Your task to perform on an android device: search for starred emails in the gmail app Image 0: 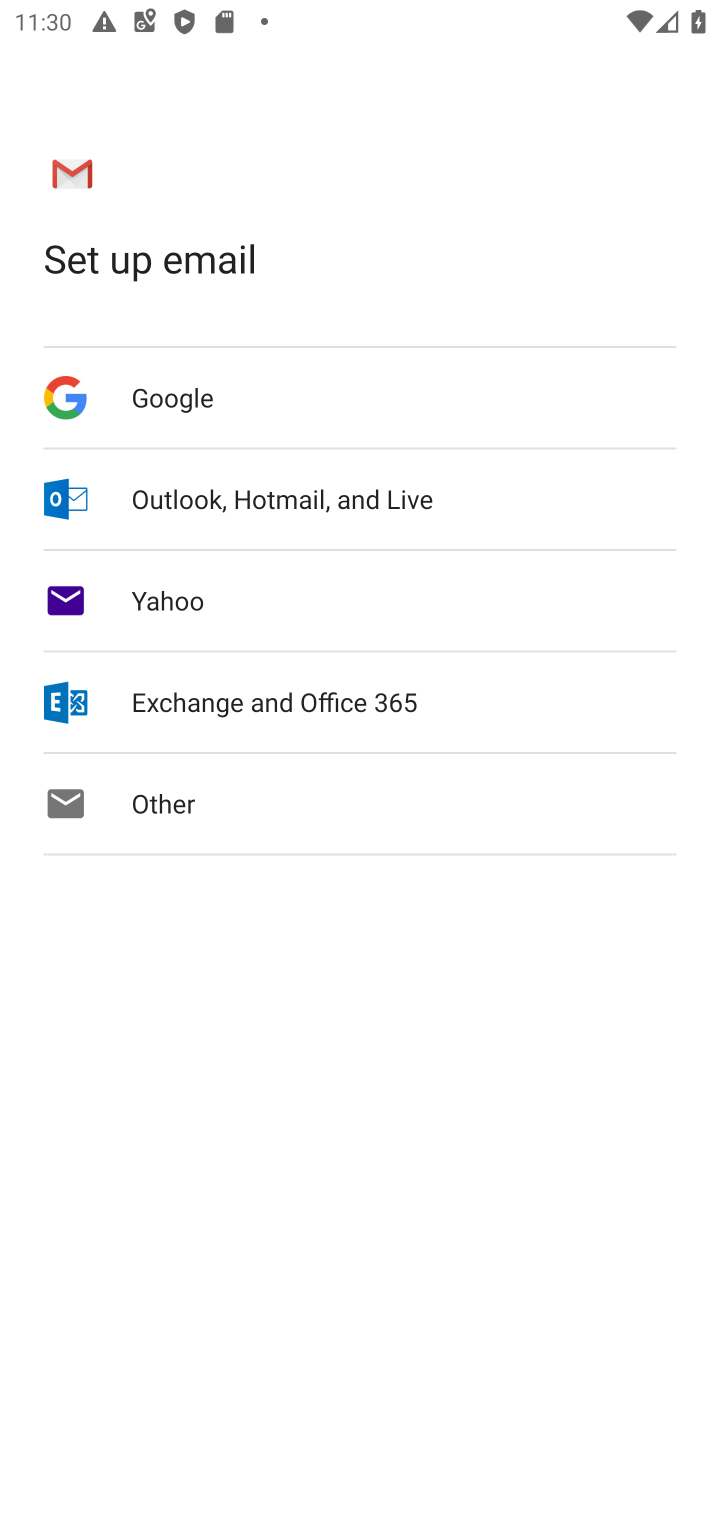
Step 0: press home button
Your task to perform on an android device: search for starred emails in the gmail app Image 1: 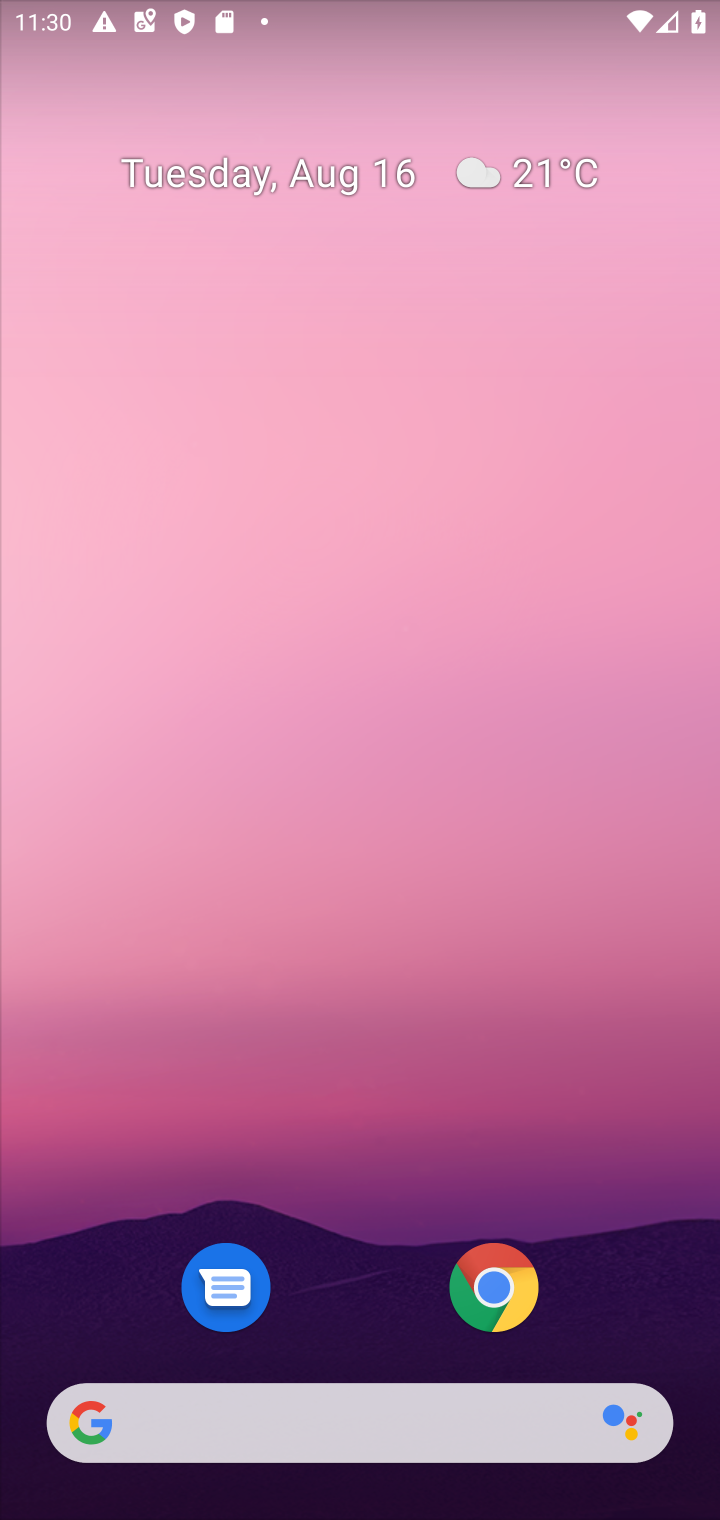
Step 1: drag from (670, 1343) to (558, 362)
Your task to perform on an android device: search for starred emails in the gmail app Image 2: 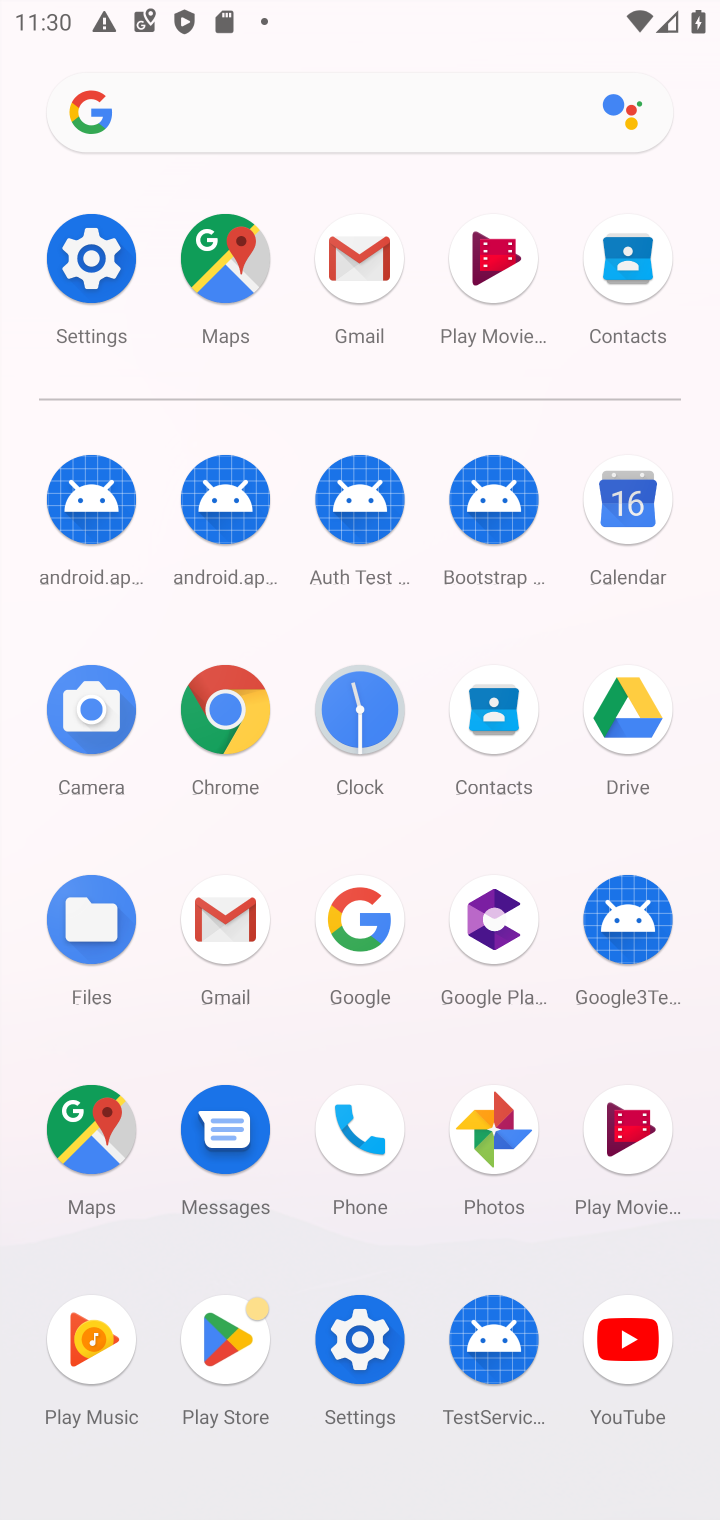
Step 2: click (225, 921)
Your task to perform on an android device: search for starred emails in the gmail app Image 3: 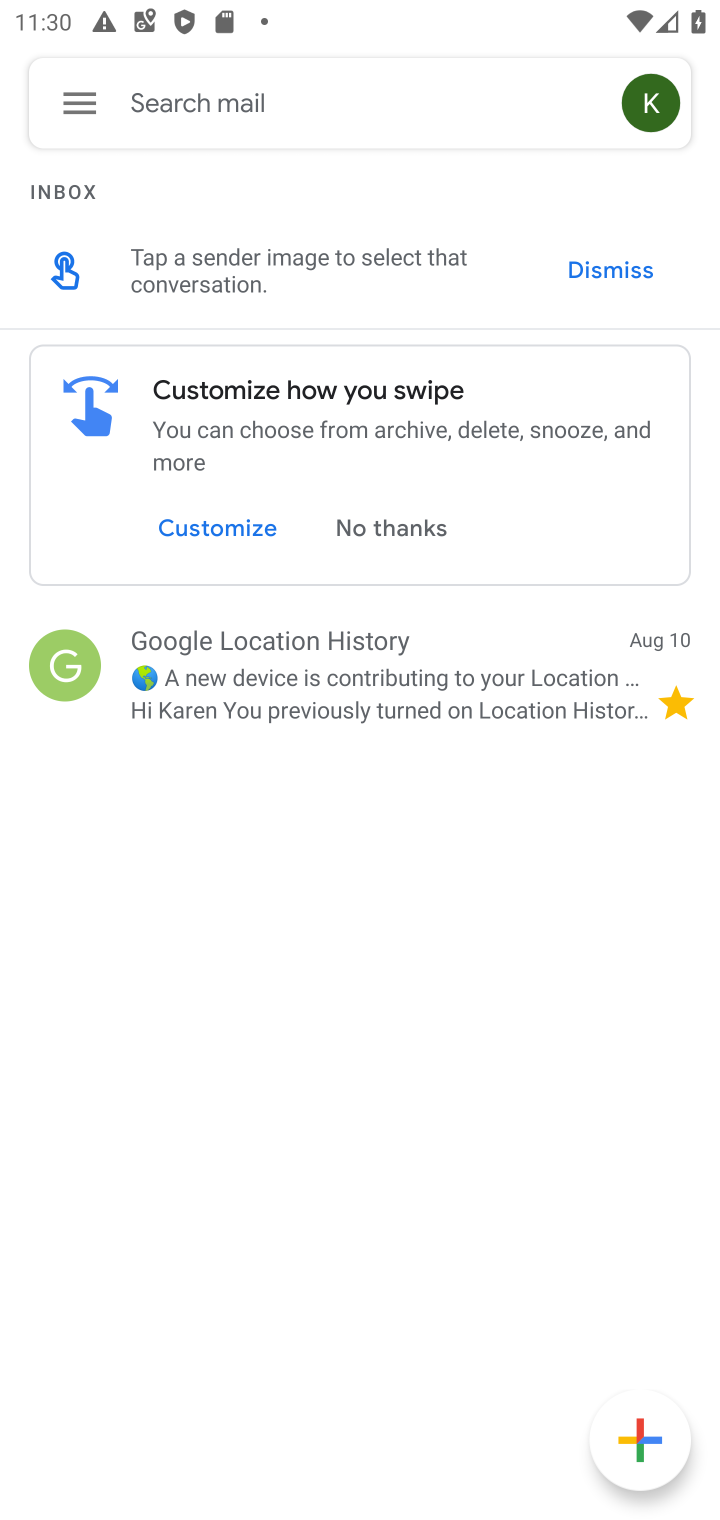
Step 3: click (73, 102)
Your task to perform on an android device: search for starred emails in the gmail app Image 4: 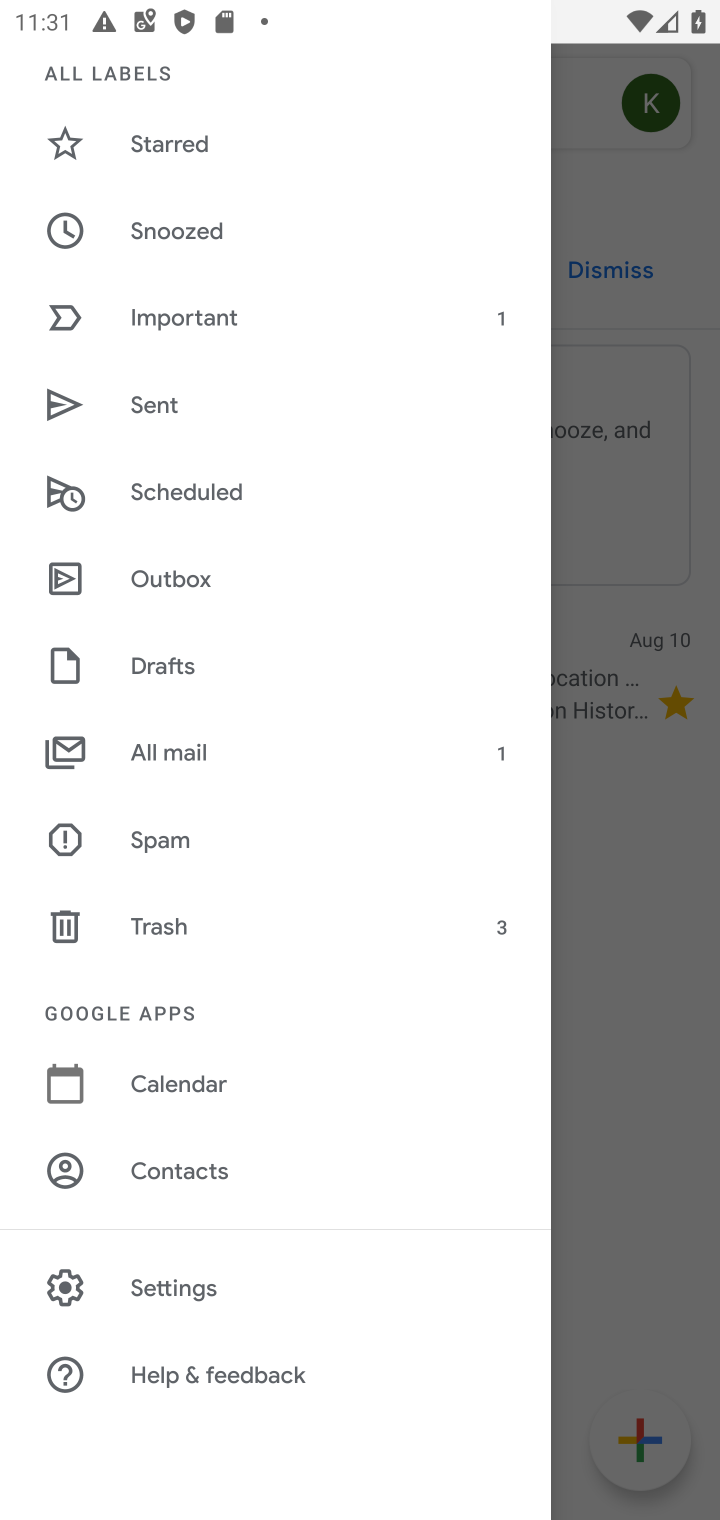
Step 4: drag from (439, 374) to (418, 728)
Your task to perform on an android device: search for starred emails in the gmail app Image 5: 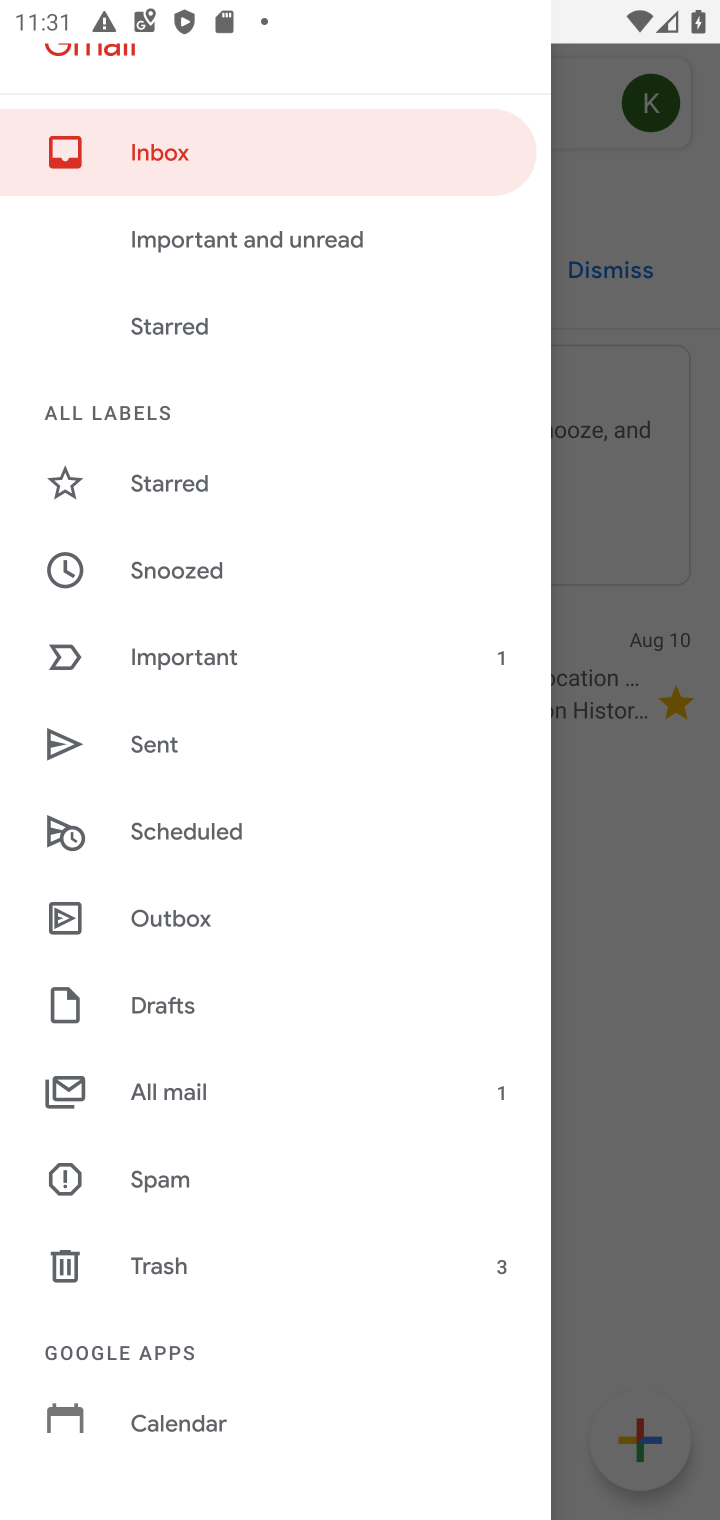
Step 5: click (168, 471)
Your task to perform on an android device: search for starred emails in the gmail app Image 6: 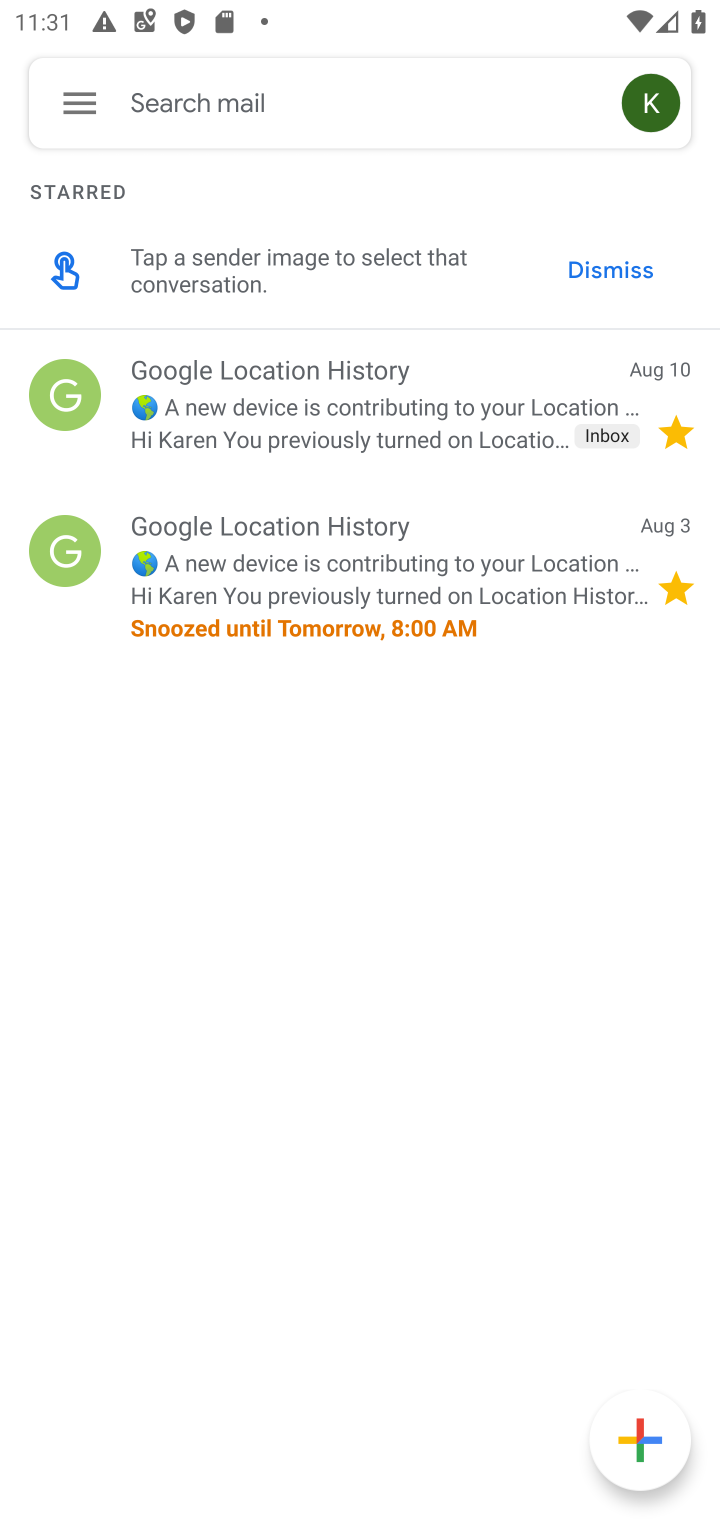
Step 6: task complete